Your task to perform on an android device: change the upload size in google photos Image 0: 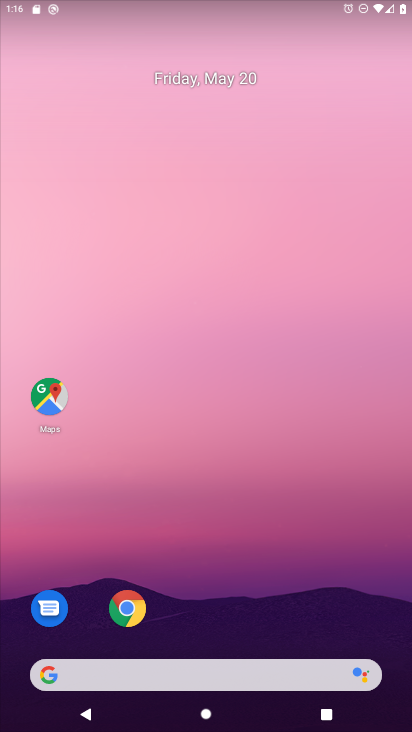
Step 0: press home button
Your task to perform on an android device: change the upload size in google photos Image 1: 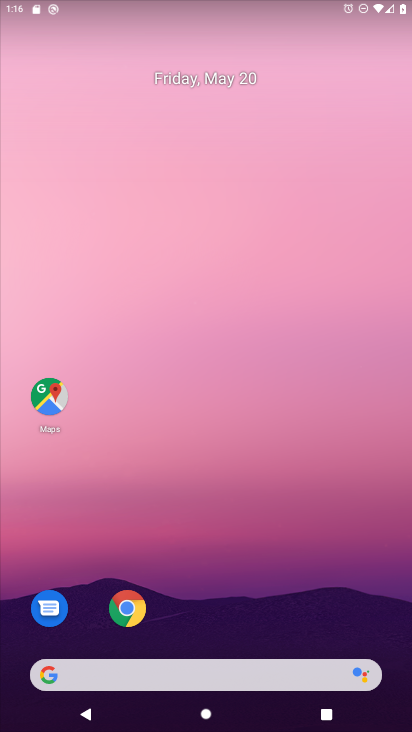
Step 1: drag from (282, 630) to (294, 50)
Your task to perform on an android device: change the upload size in google photos Image 2: 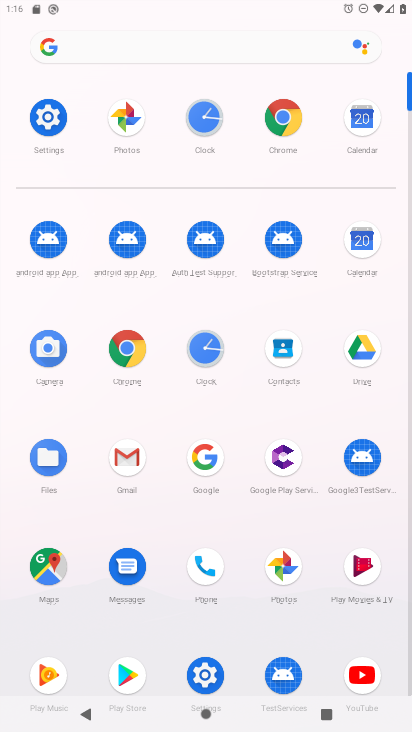
Step 2: click (288, 561)
Your task to perform on an android device: change the upload size in google photos Image 3: 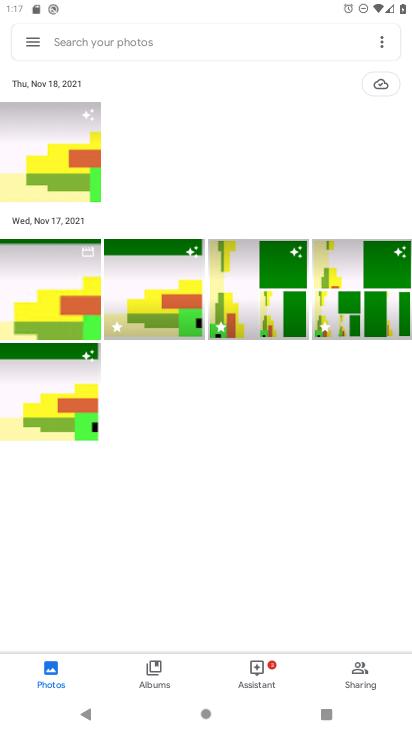
Step 3: click (38, 38)
Your task to perform on an android device: change the upload size in google photos Image 4: 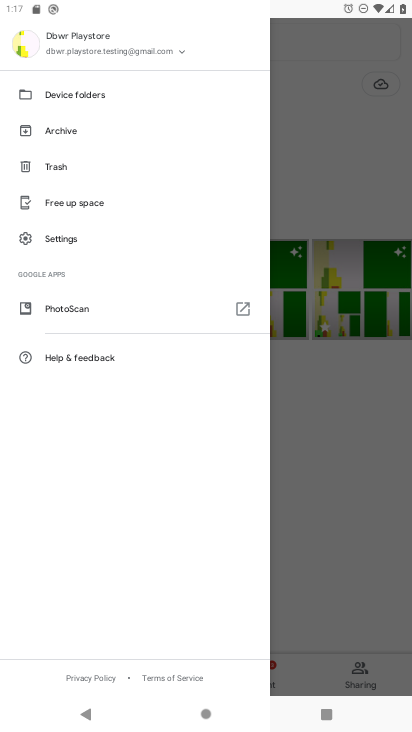
Step 4: click (68, 237)
Your task to perform on an android device: change the upload size in google photos Image 5: 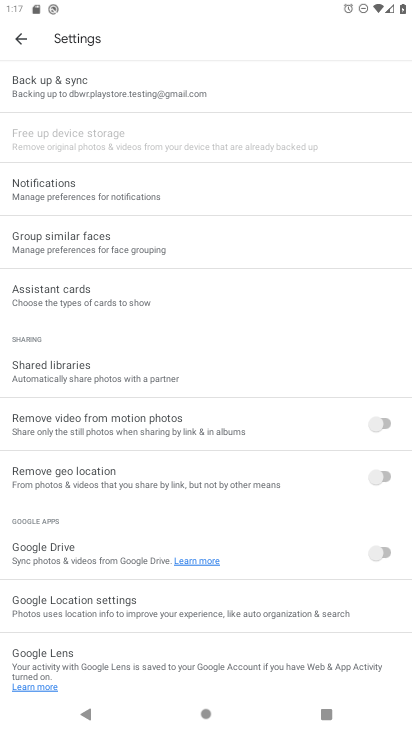
Step 5: click (69, 92)
Your task to perform on an android device: change the upload size in google photos Image 6: 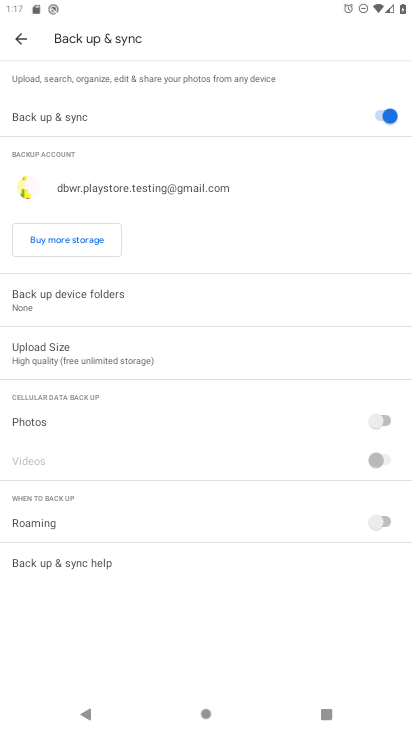
Step 6: click (54, 368)
Your task to perform on an android device: change the upload size in google photos Image 7: 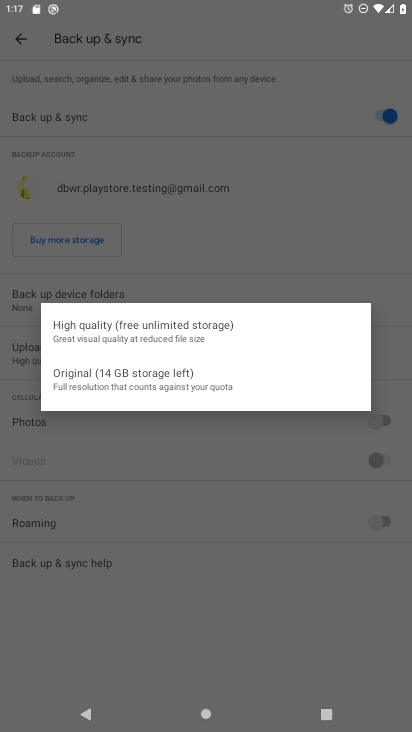
Step 7: click (73, 382)
Your task to perform on an android device: change the upload size in google photos Image 8: 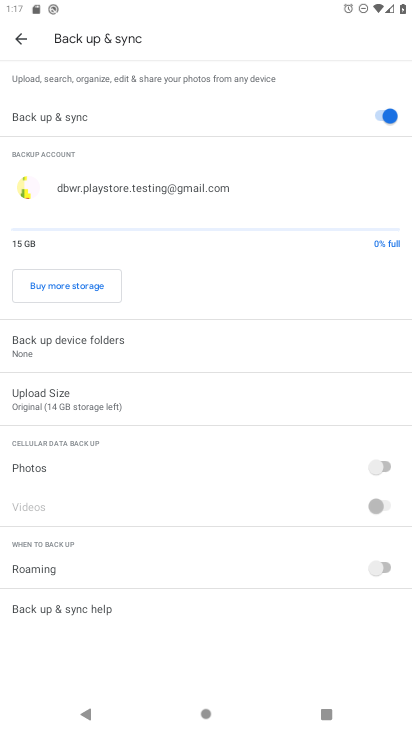
Step 8: task complete